Your task to perform on an android device: Open Google Chrome Image 0: 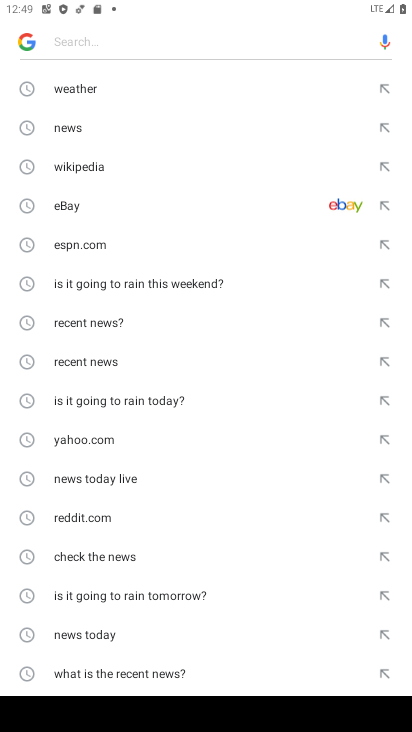
Step 0: press home button
Your task to perform on an android device: Open Google Chrome Image 1: 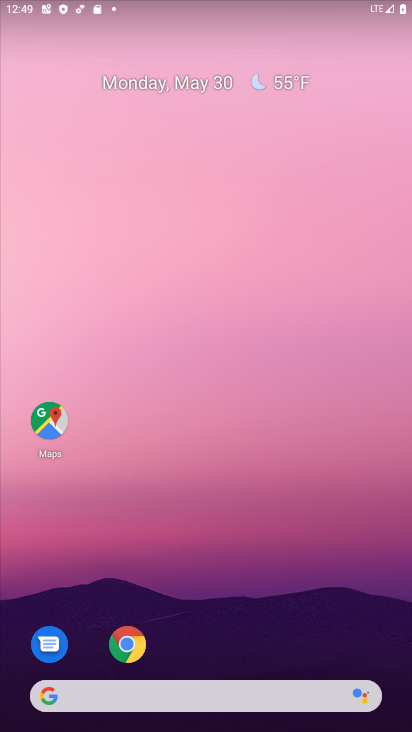
Step 1: click (132, 645)
Your task to perform on an android device: Open Google Chrome Image 2: 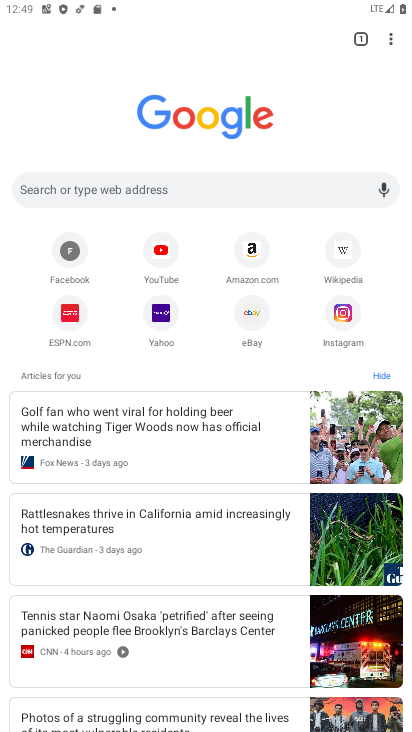
Step 2: task complete